Your task to perform on an android device: turn on priority inbox in the gmail app Image 0: 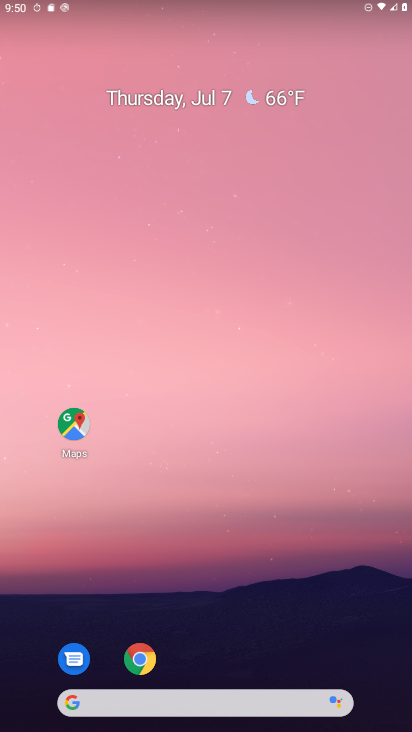
Step 0: drag from (378, 681) to (292, 154)
Your task to perform on an android device: turn on priority inbox in the gmail app Image 1: 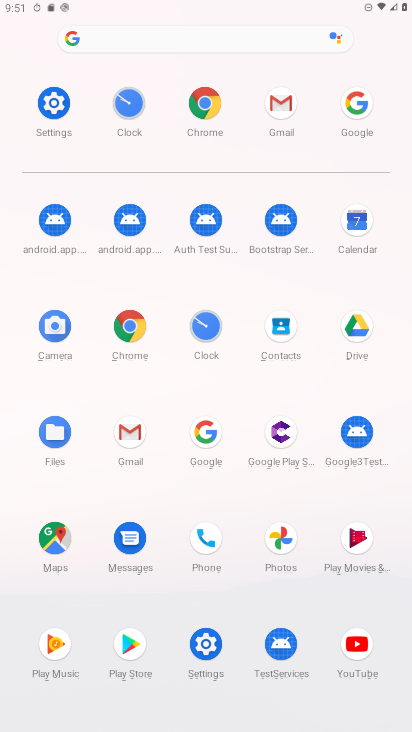
Step 1: click (122, 427)
Your task to perform on an android device: turn on priority inbox in the gmail app Image 2: 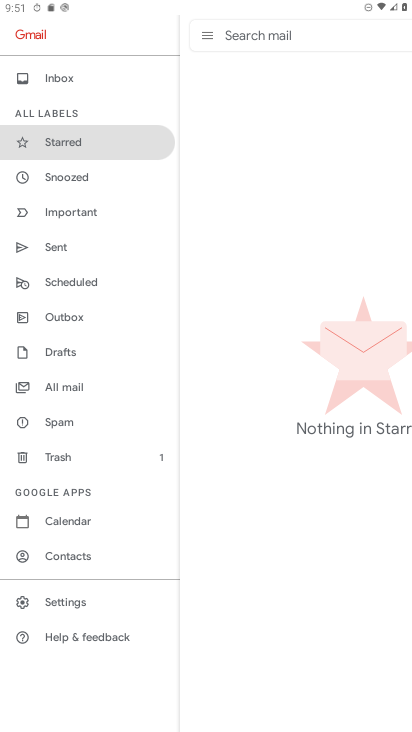
Step 2: click (79, 599)
Your task to perform on an android device: turn on priority inbox in the gmail app Image 3: 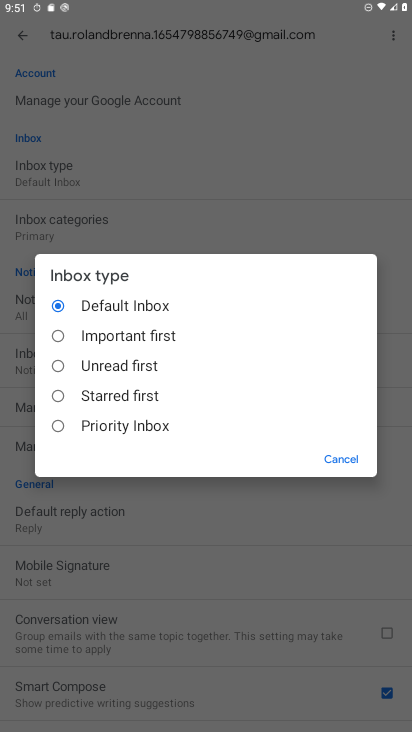
Step 3: click (55, 421)
Your task to perform on an android device: turn on priority inbox in the gmail app Image 4: 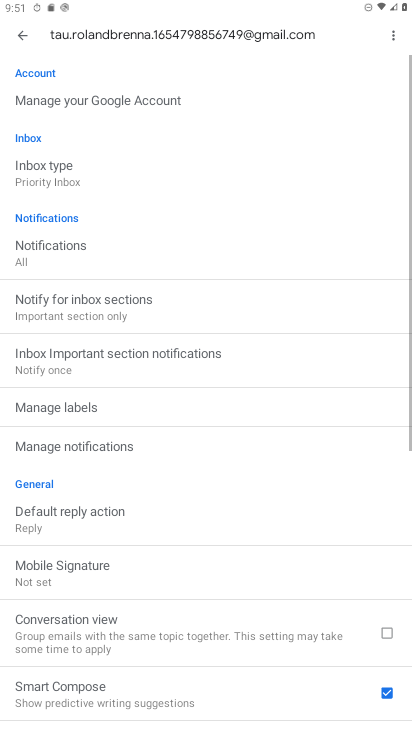
Step 4: task complete